Your task to perform on an android device: Set the phone to "Do not disturb". Image 0: 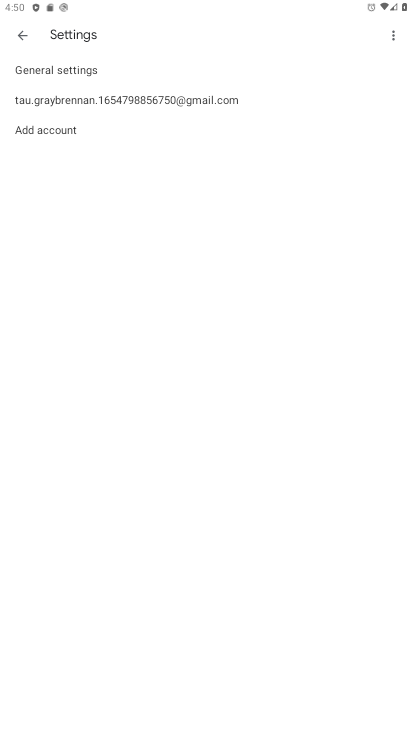
Step 0: drag from (171, 1) to (209, 639)
Your task to perform on an android device: Set the phone to "Do not disturb". Image 1: 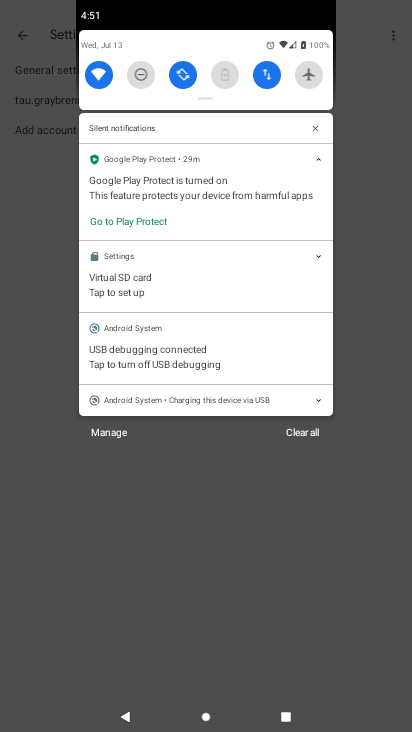
Step 1: click (143, 68)
Your task to perform on an android device: Set the phone to "Do not disturb". Image 2: 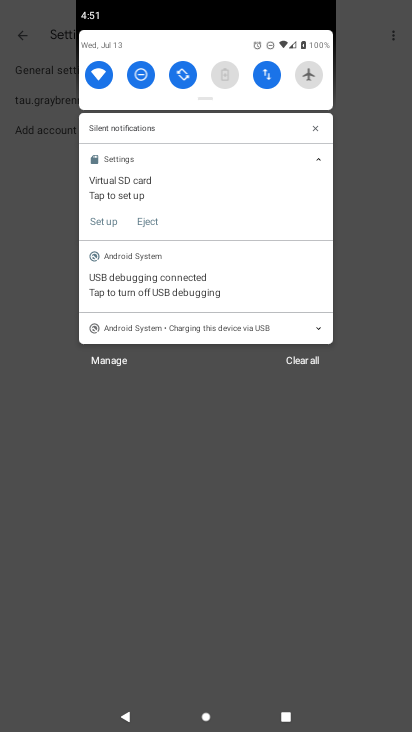
Step 2: task complete